Your task to perform on an android device: manage bookmarks in the chrome app Image 0: 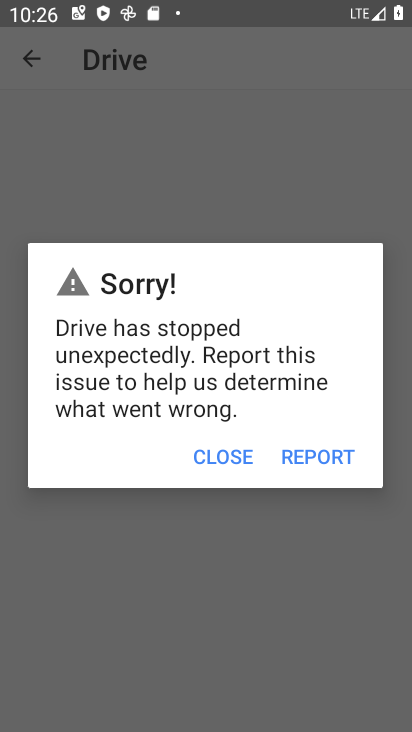
Step 0: press home button
Your task to perform on an android device: manage bookmarks in the chrome app Image 1: 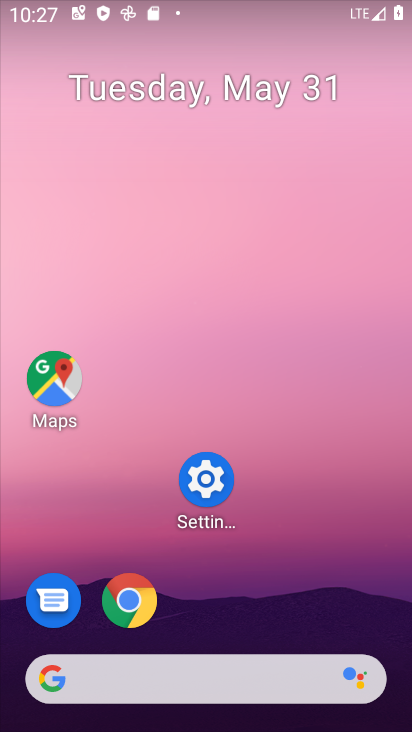
Step 1: drag from (254, 718) to (352, 299)
Your task to perform on an android device: manage bookmarks in the chrome app Image 2: 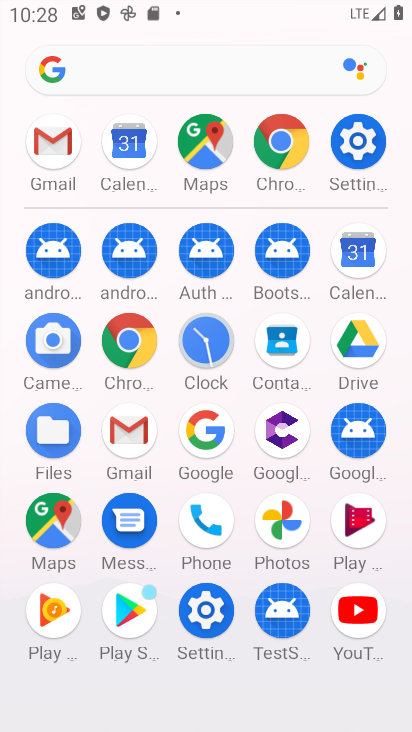
Step 2: click (292, 143)
Your task to perform on an android device: manage bookmarks in the chrome app Image 3: 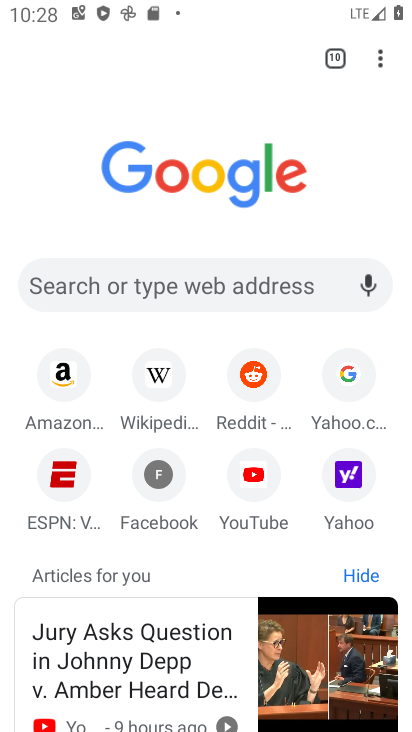
Step 3: click (370, 60)
Your task to perform on an android device: manage bookmarks in the chrome app Image 4: 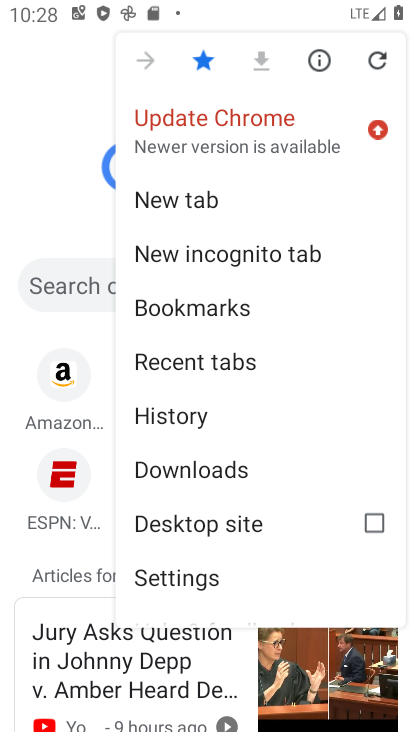
Step 4: click (198, 301)
Your task to perform on an android device: manage bookmarks in the chrome app Image 5: 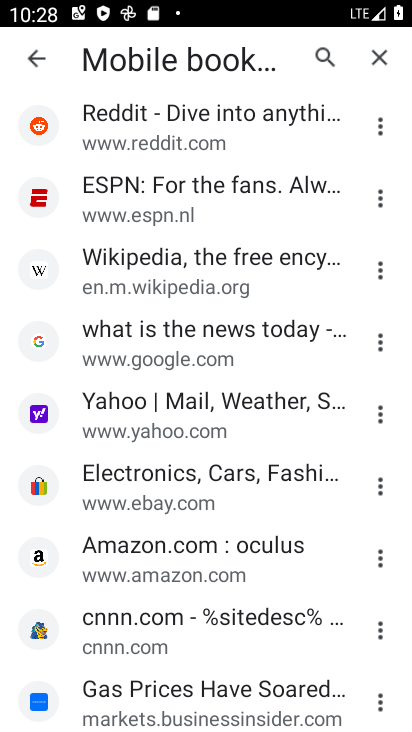
Step 5: task complete